Your task to perform on an android device: all mails in gmail Image 0: 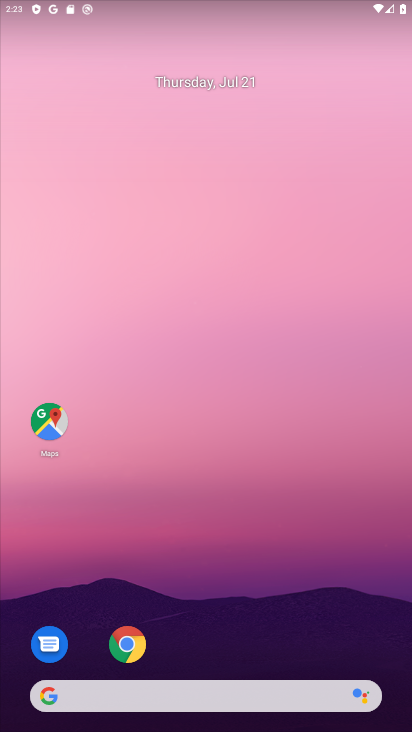
Step 0: drag from (285, 638) to (202, 57)
Your task to perform on an android device: all mails in gmail Image 1: 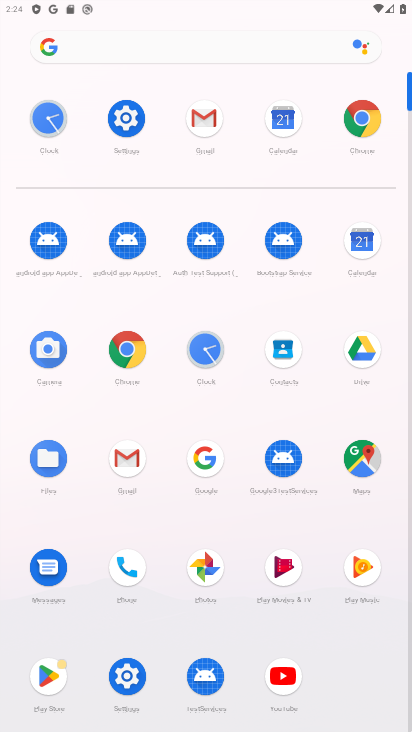
Step 1: click (204, 128)
Your task to perform on an android device: all mails in gmail Image 2: 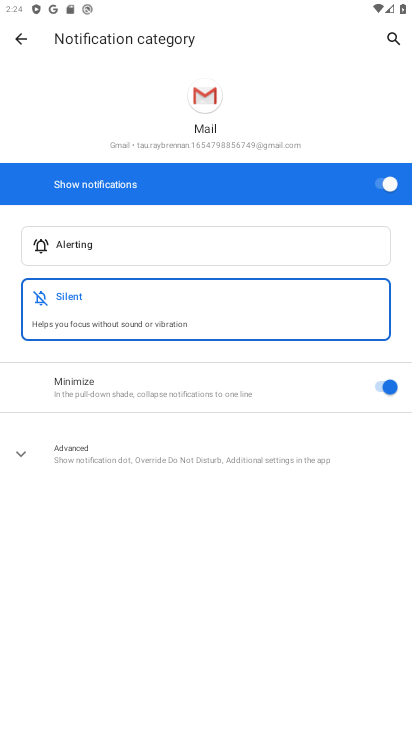
Step 2: click (30, 34)
Your task to perform on an android device: all mails in gmail Image 3: 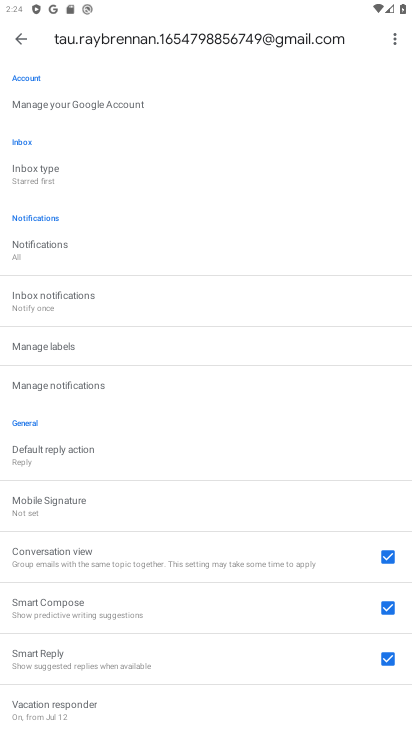
Step 3: click (17, 36)
Your task to perform on an android device: all mails in gmail Image 4: 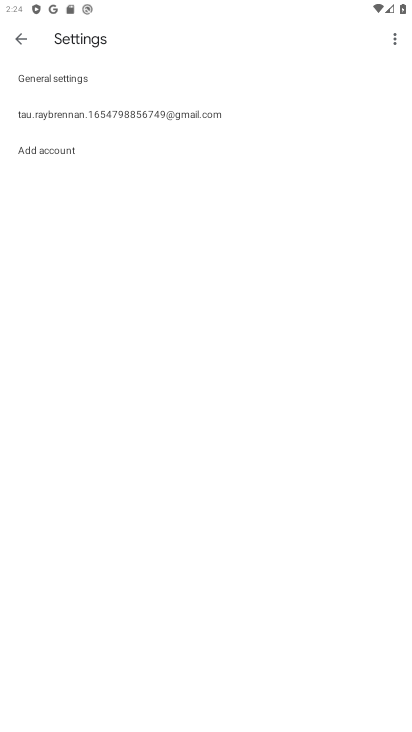
Step 4: click (17, 36)
Your task to perform on an android device: all mails in gmail Image 5: 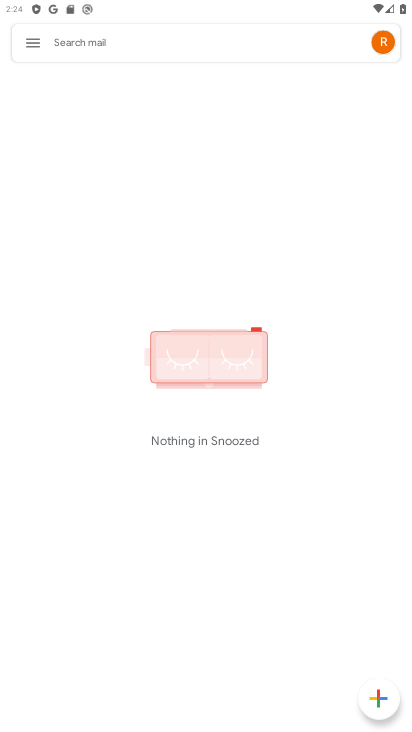
Step 5: click (22, 38)
Your task to perform on an android device: all mails in gmail Image 6: 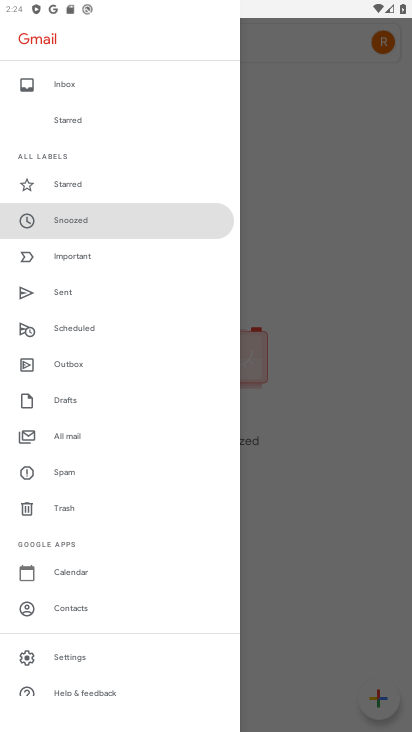
Step 6: click (79, 433)
Your task to perform on an android device: all mails in gmail Image 7: 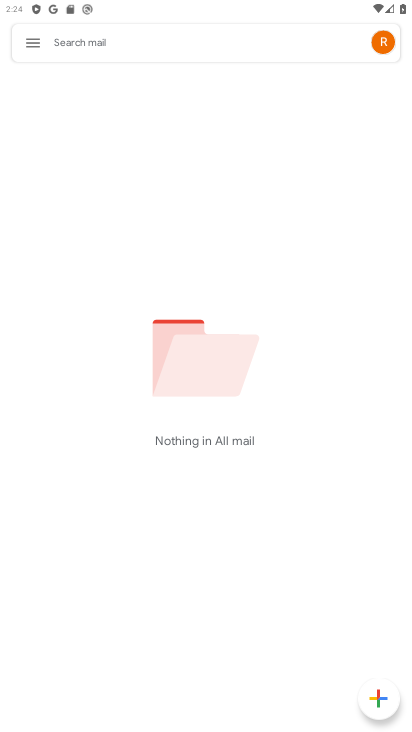
Step 7: task complete